Your task to perform on an android device: manage bookmarks in the chrome app Image 0: 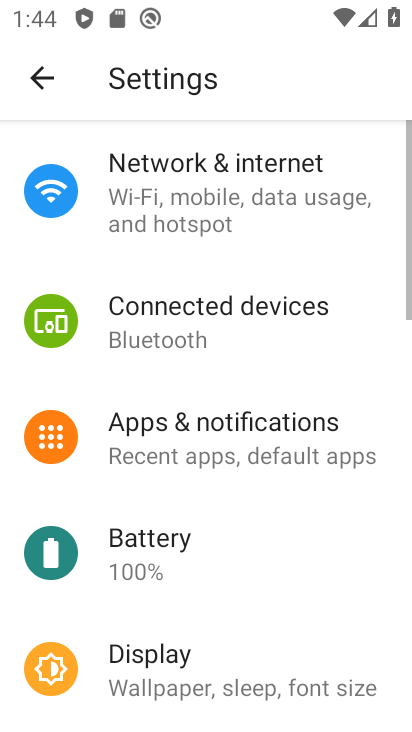
Step 0: press home button
Your task to perform on an android device: manage bookmarks in the chrome app Image 1: 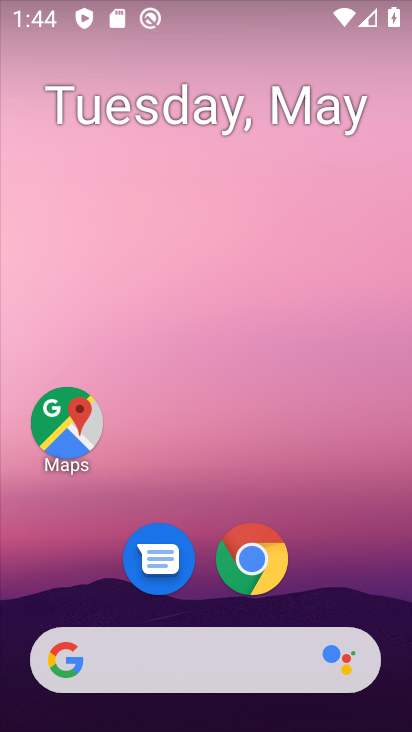
Step 1: drag from (394, 664) to (366, 30)
Your task to perform on an android device: manage bookmarks in the chrome app Image 2: 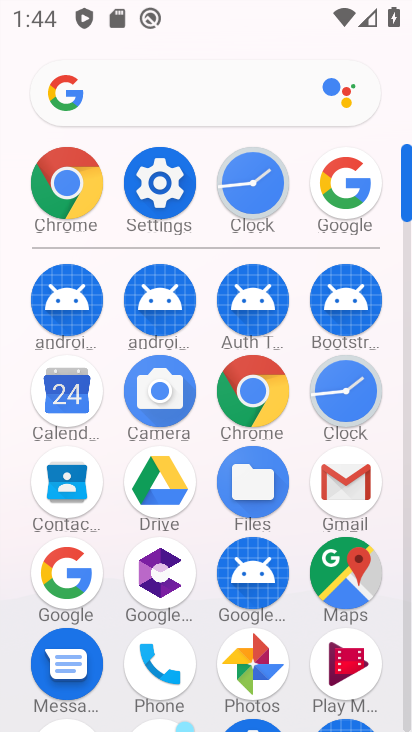
Step 2: click (50, 187)
Your task to perform on an android device: manage bookmarks in the chrome app Image 3: 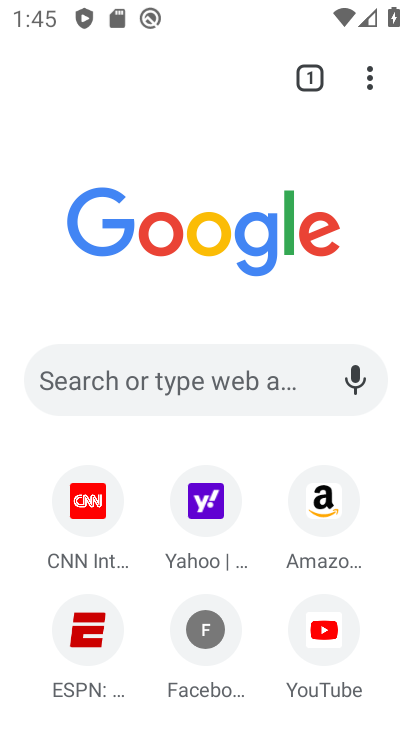
Step 3: click (379, 76)
Your task to perform on an android device: manage bookmarks in the chrome app Image 4: 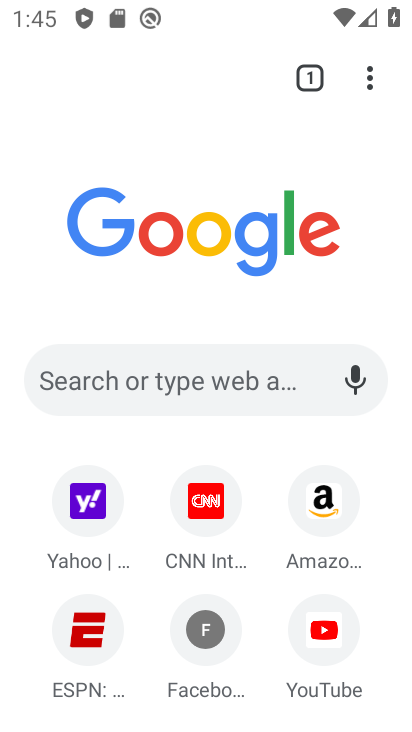
Step 4: click (367, 73)
Your task to perform on an android device: manage bookmarks in the chrome app Image 5: 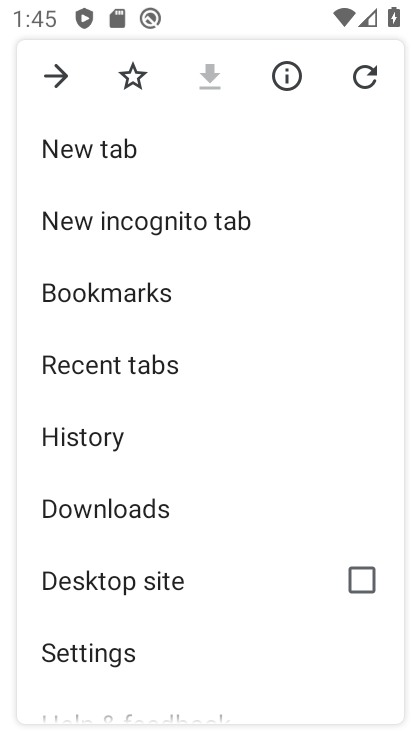
Step 5: click (184, 312)
Your task to perform on an android device: manage bookmarks in the chrome app Image 6: 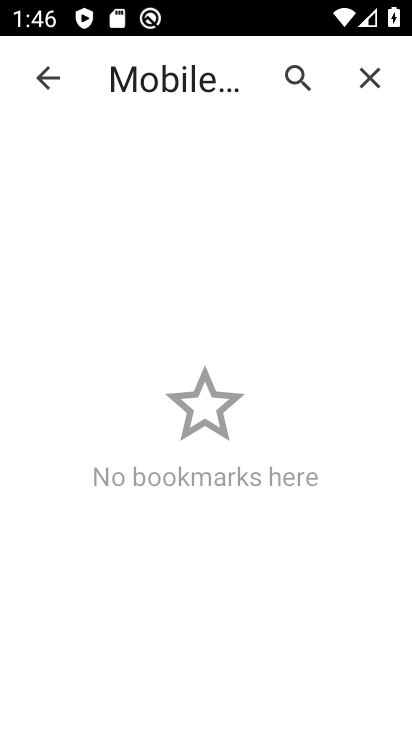
Step 6: task complete